Your task to perform on an android device: Open location settings Image 0: 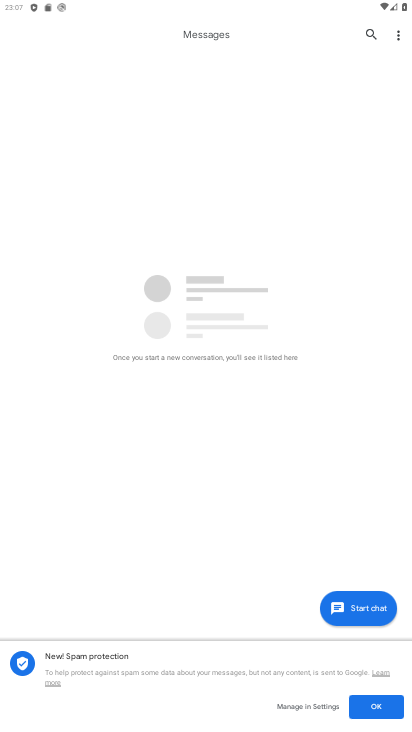
Step 0: press home button
Your task to perform on an android device: Open location settings Image 1: 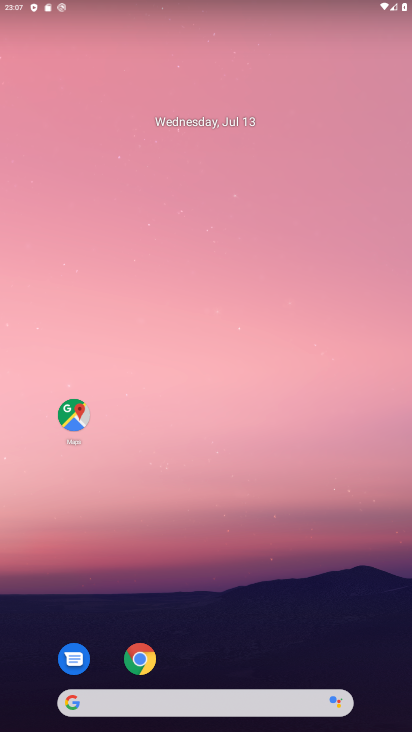
Step 1: drag from (376, 650) to (324, 111)
Your task to perform on an android device: Open location settings Image 2: 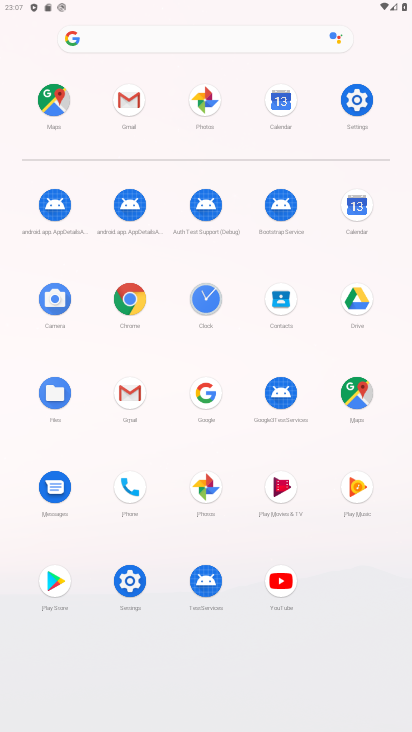
Step 2: click (128, 582)
Your task to perform on an android device: Open location settings Image 3: 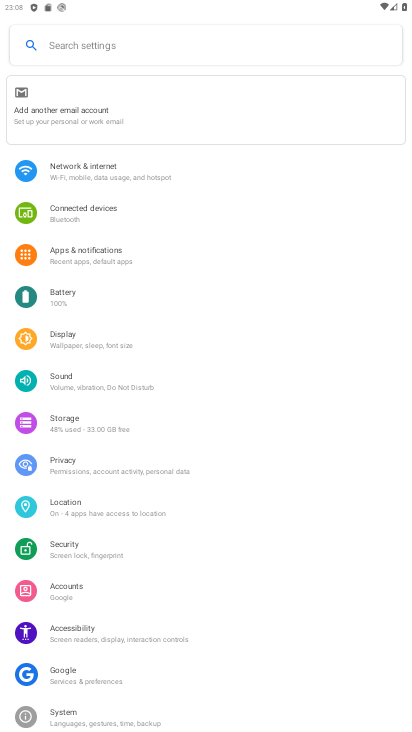
Step 3: click (63, 511)
Your task to perform on an android device: Open location settings Image 4: 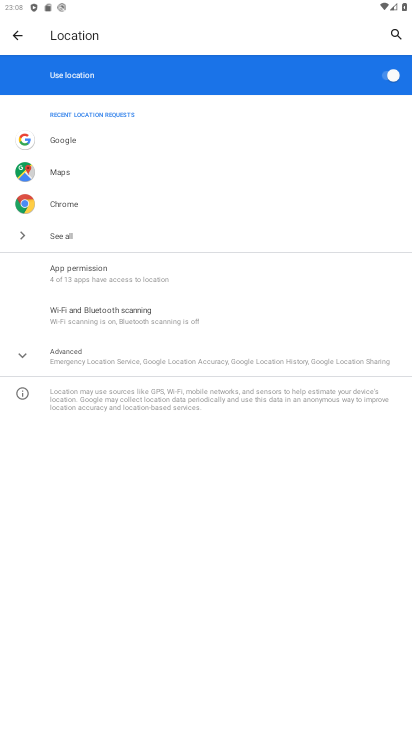
Step 4: click (16, 355)
Your task to perform on an android device: Open location settings Image 5: 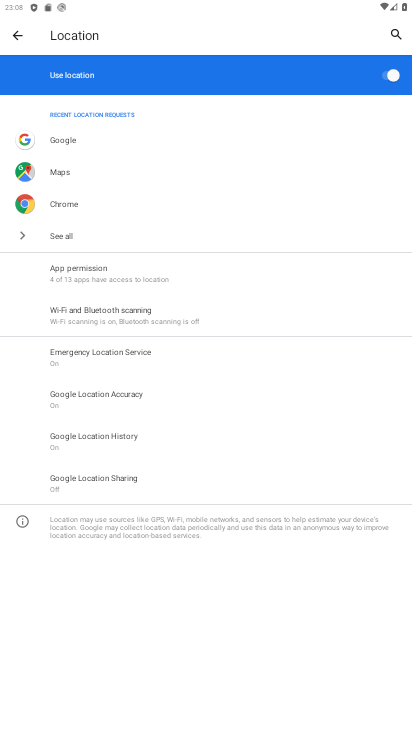
Step 5: task complete